Your task to perform on an android device: change the clock display to digital Image 0: 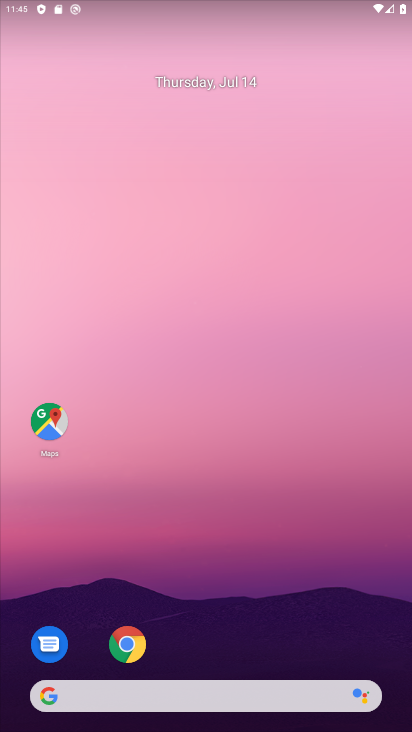
Step 0: drag from (211, 595) to (248, 299)
Your task to perform on an android device: change the clock display to digital Image 1: 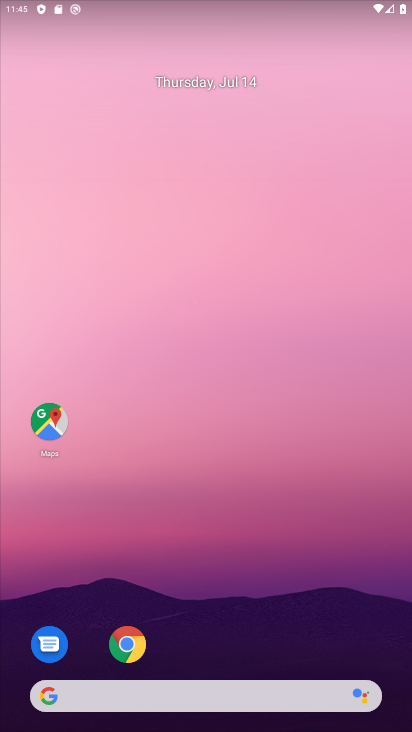
Step 1: drag from (248, 660) to (308, 206)
Your task to perform on an android device: change the clock display to digital Image 2: 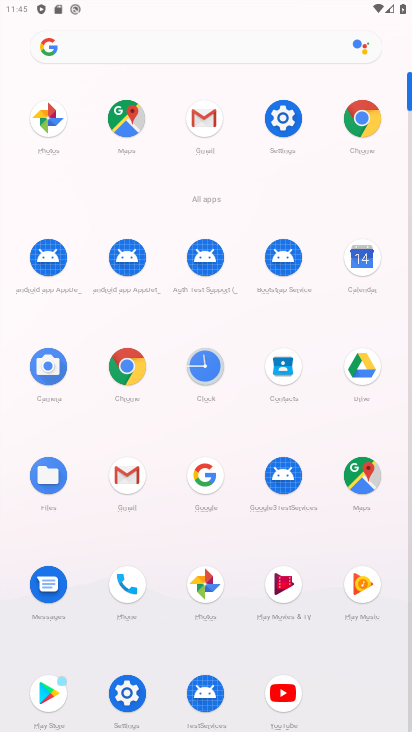
Step 2: click (197, 373)
Your task to perform on an android device: change the clock display to digital Image 3: 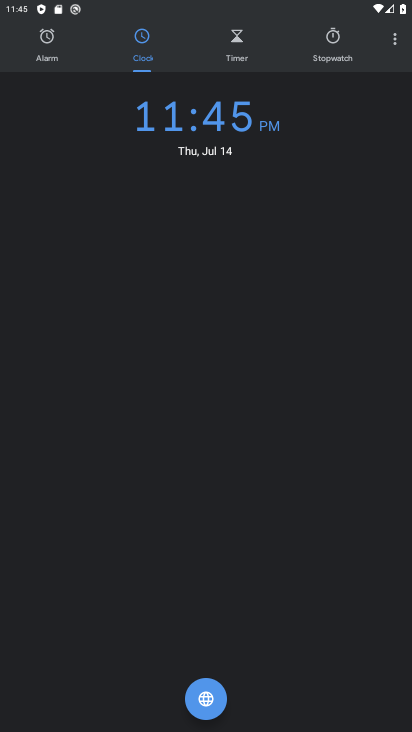
Step 3: click (392, 44)
Your task to perform on an android device: change the clock display to digital Image 4: 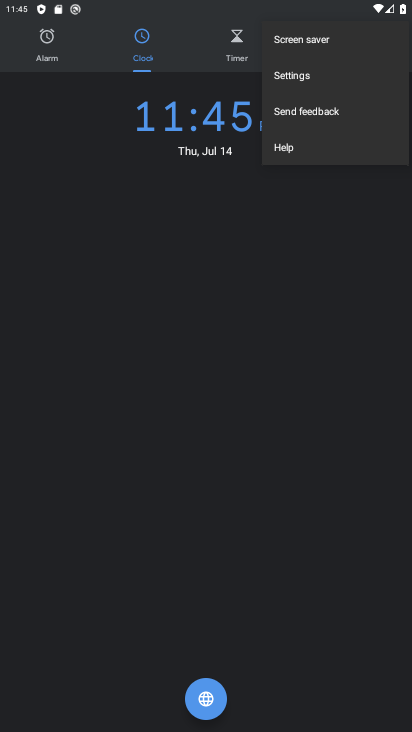
Step 4: click (291, 77)
Your task to perform on an android device: change the clock display to digital Image 5: 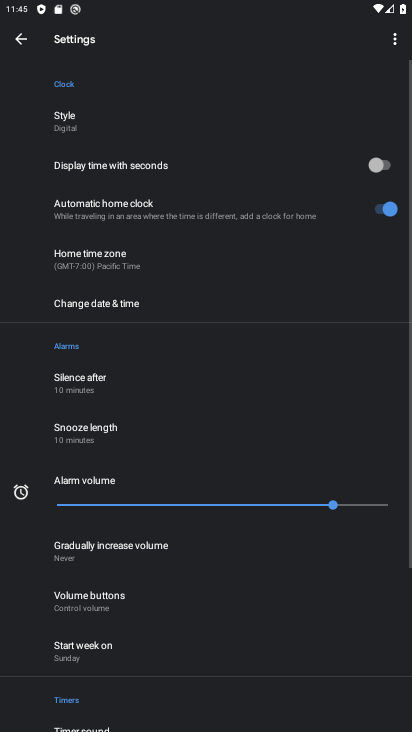
Step 5: click (86, 127)
Your task to perform on an android device: change the clock display to digital Image 6: 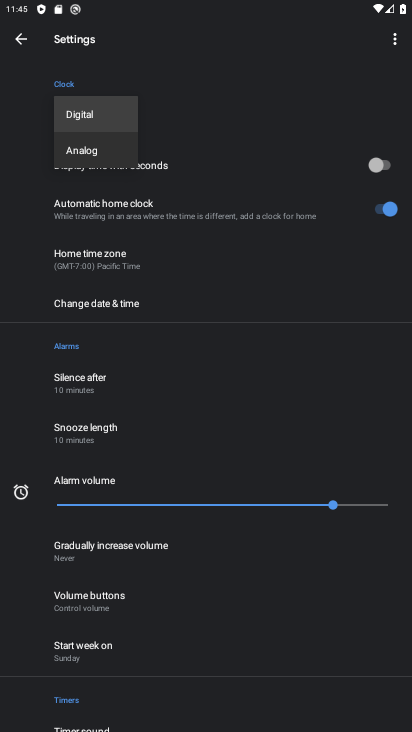
Step 6: click (94, 113)
Your task to perform on an android device: change the clock display to digital Image 7: 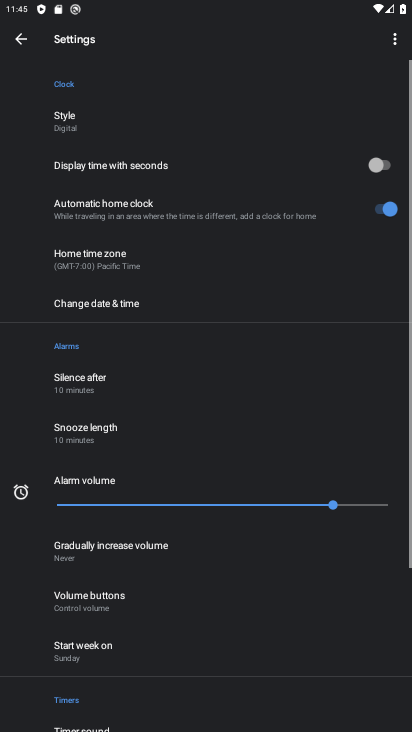
Step 7: task complete